Your task to perform on an android device: find photos in the google photos app Image 0: 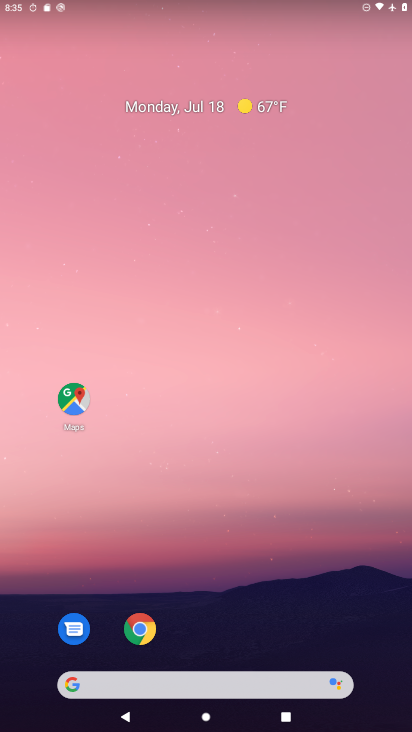
Step 0: drag from (254, 661) to (224, 137)
Your task to perform on an android device: find photos in the google photos app Image 1: 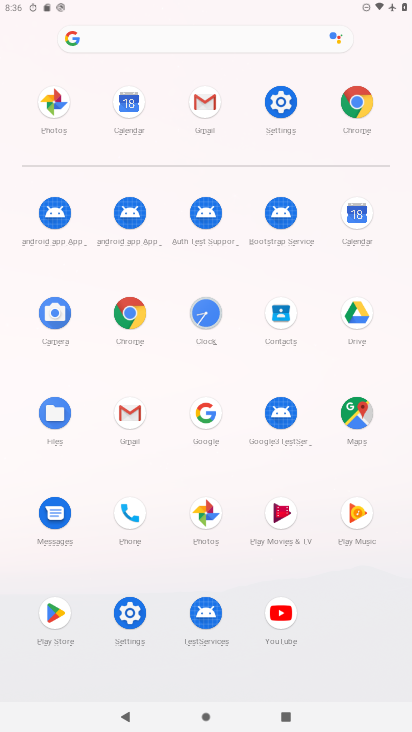
Step 1: click (202, 523)
Your task to perform on an android device: find photos in the google photos app Image 2: 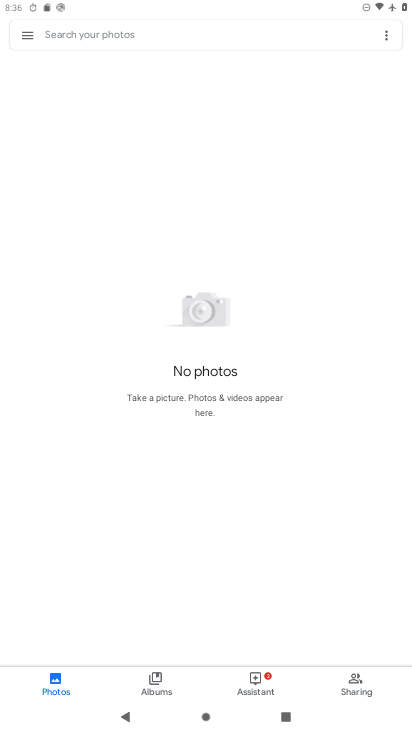
Step 2: task complete